Your task to perform on an android device: find which apps use the phone's location Image 0: 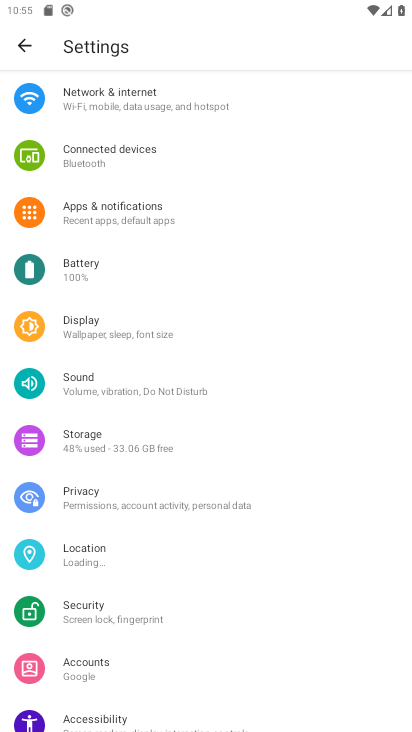
Step 0: click (131, 559)
Your task to perform on an android device: find which apps use the phone's location Image 1: 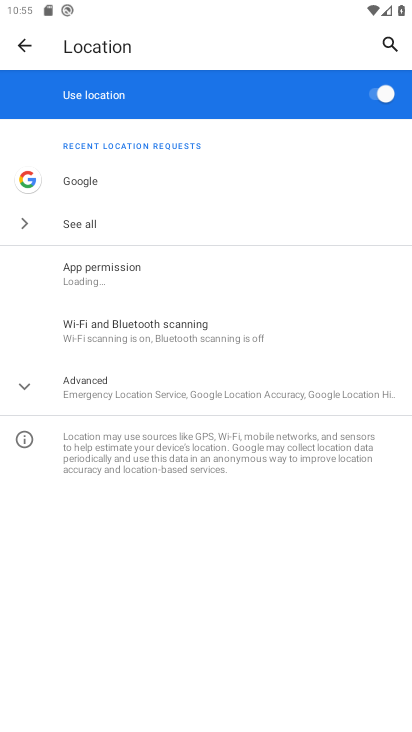
Step 1: task complete